Your task to perform on an android device: Open display settings Image 0: 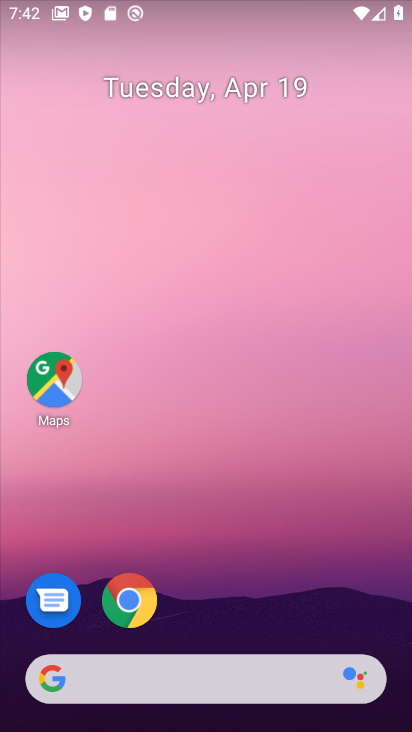
Step 0: drag from (233, 617) to (260, 100)
Your task to perform on an android device: Open display settings Image 1: 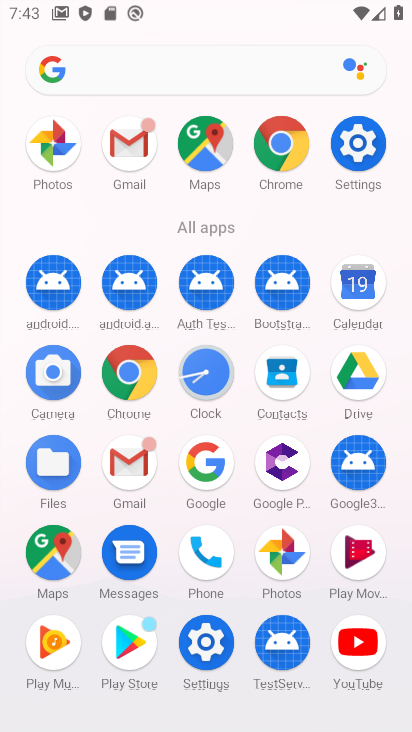
Step 1: click (382, 146)
Your task to perform on an android device: Open display settings Image 2: 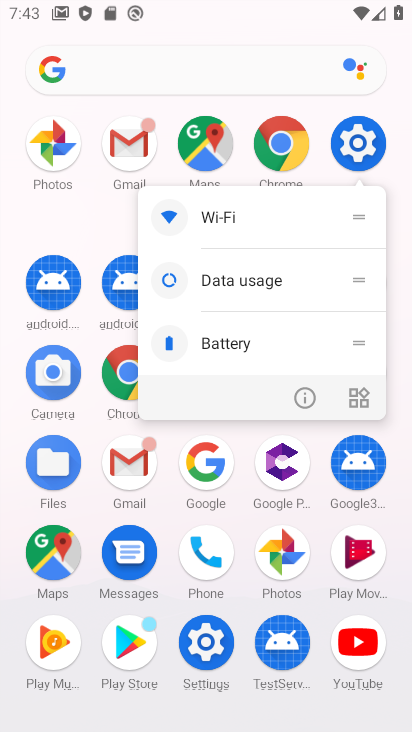
Step 2: click (366, 155)
Your task to perform on an android device: Open display settings Image 3: 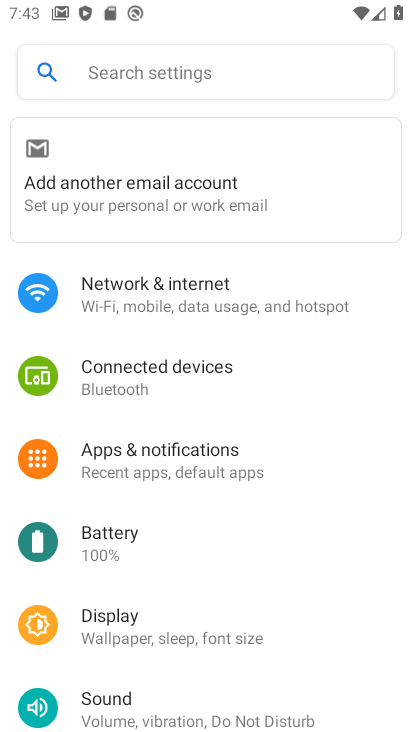
Step 3: click (198, 619)
Your task to perform on an android device: Open display settings Image 4: 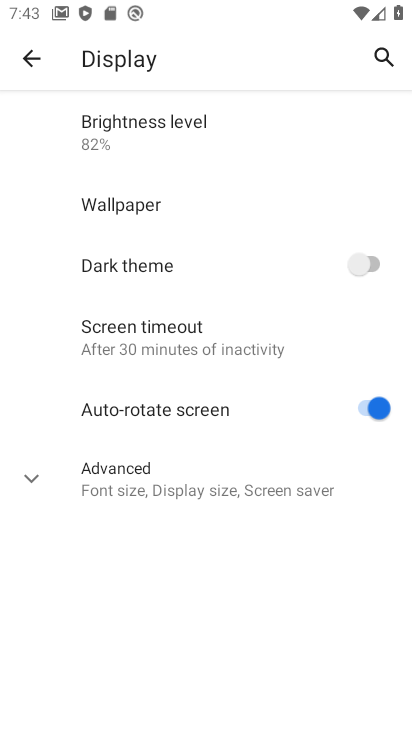
Step 4: task complete